Your task to perform on an android device: install app "Cash App" Image 0: 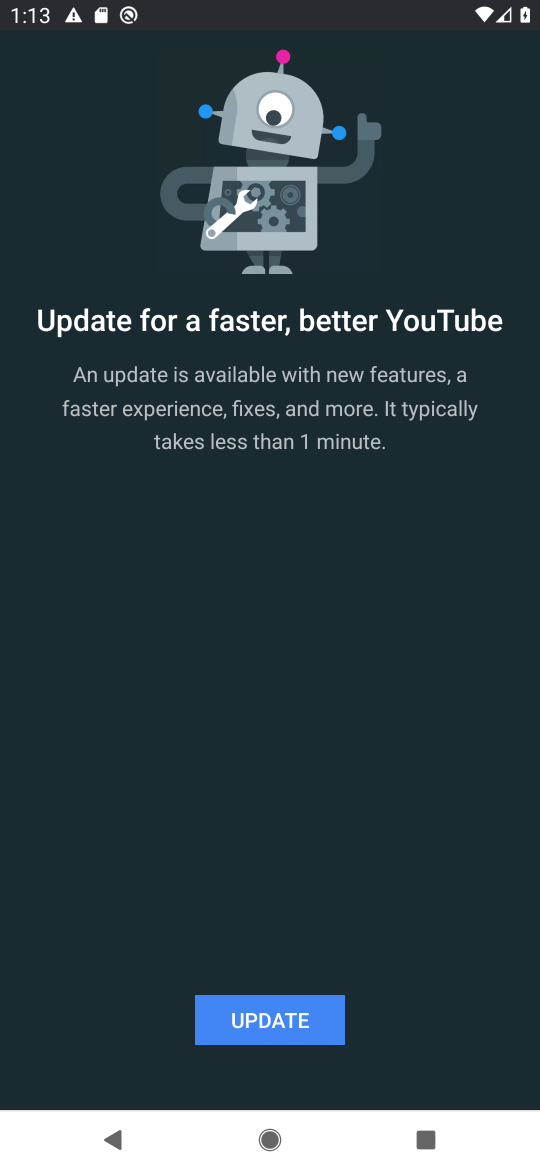
Step 0: press home button
Your task to perform on an android device: install app "Cash App" Image 1: 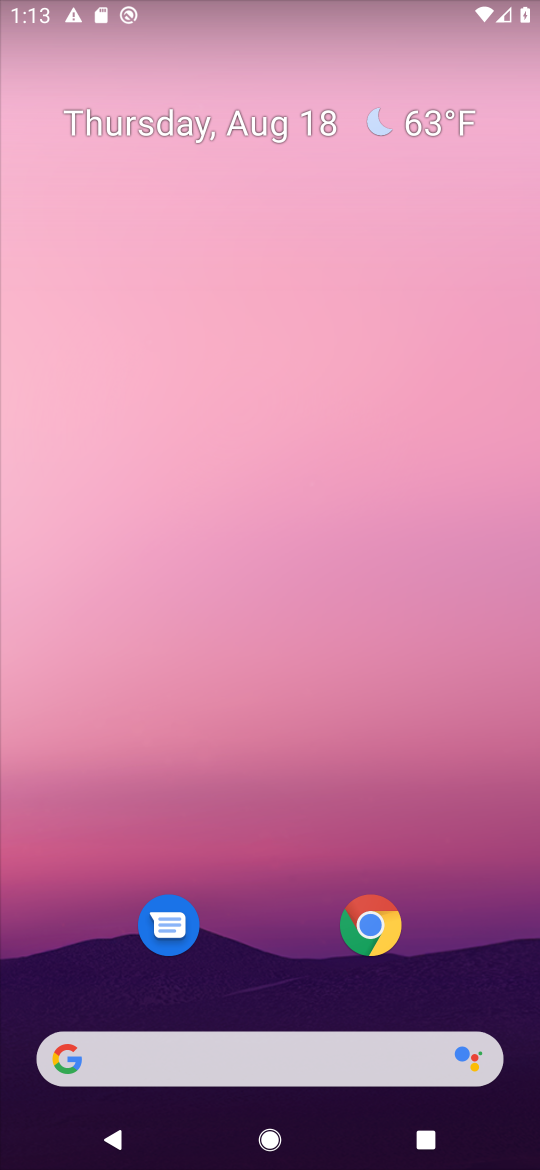
Step 1: drag from (246, 758) to (227, 129)
Your task to perform on an android device: install app "Cash App" Image 2: 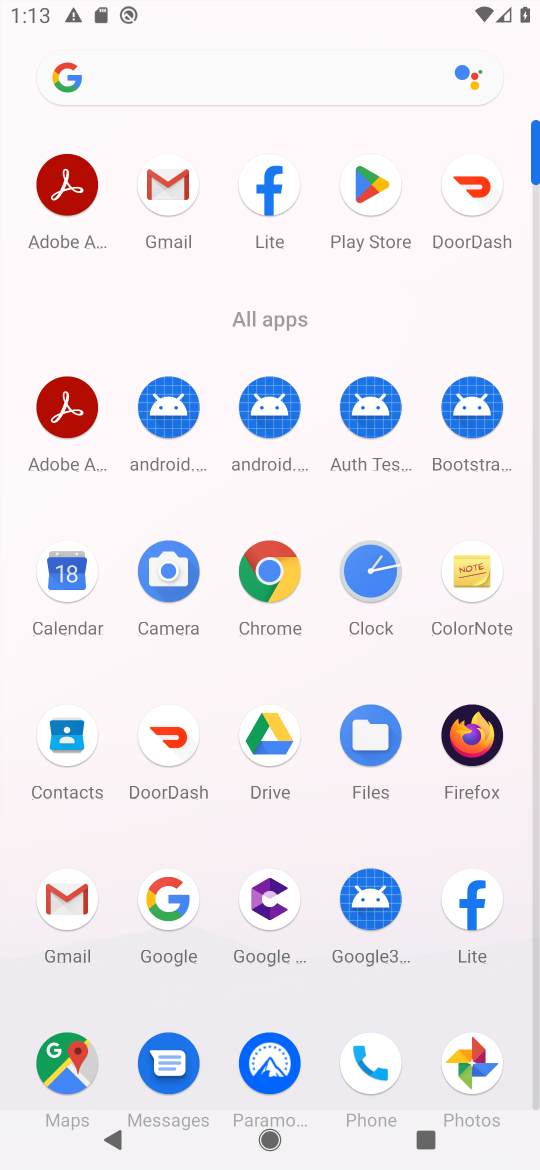
Step 2: click (378, 195)
Your task to perform on an android device: install app "Cash App" Image 3: 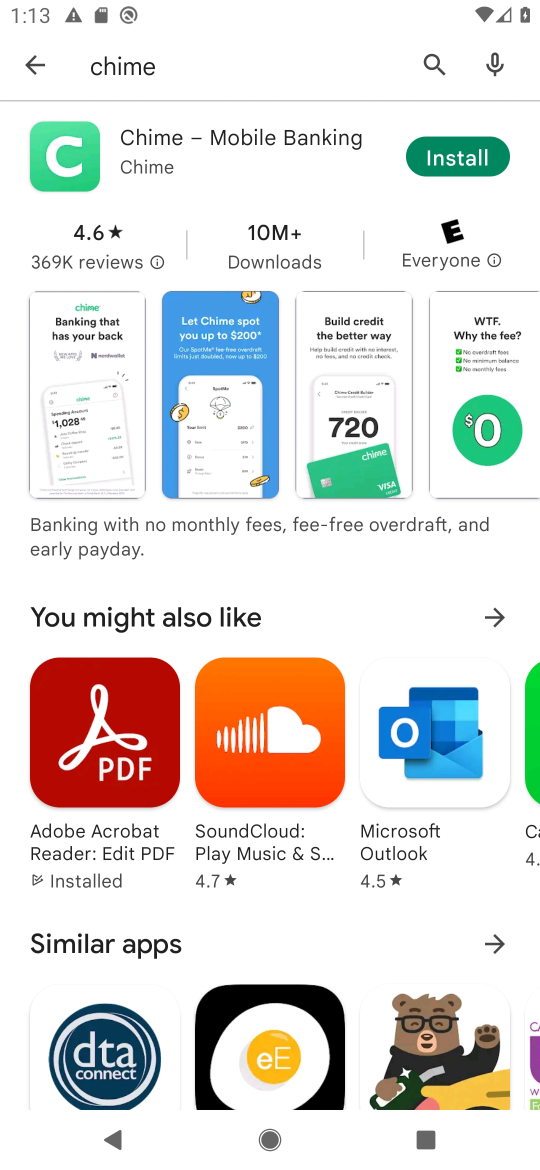
Step 3: click (30, 69)
Your task to perform on an android device: install app "Cash App" Image 4: 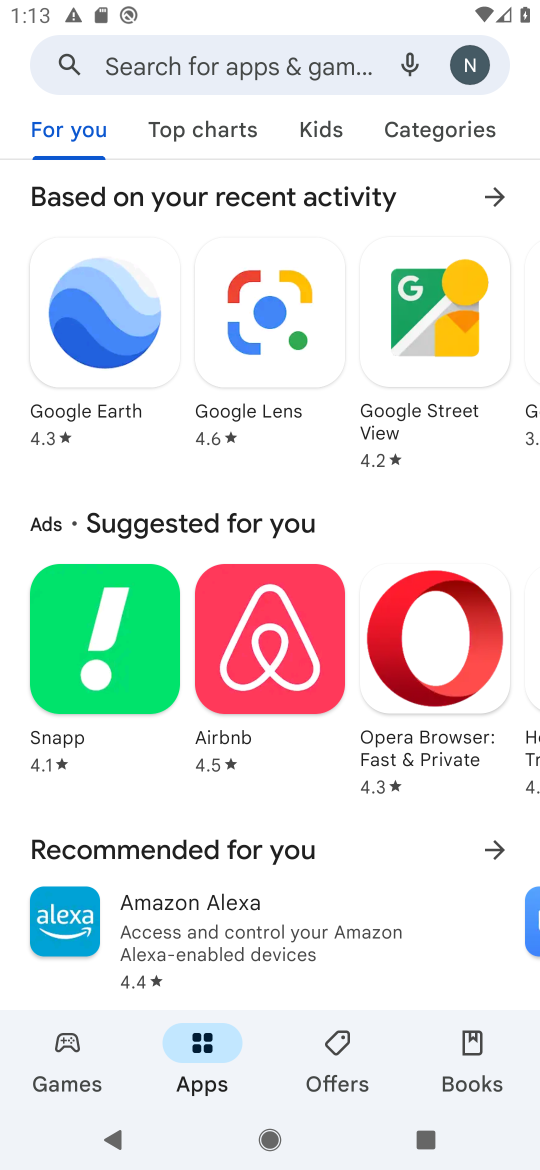
Step 4: click (276, 52)
Your task to perform on an android device: install app "Cash App" Image 5: 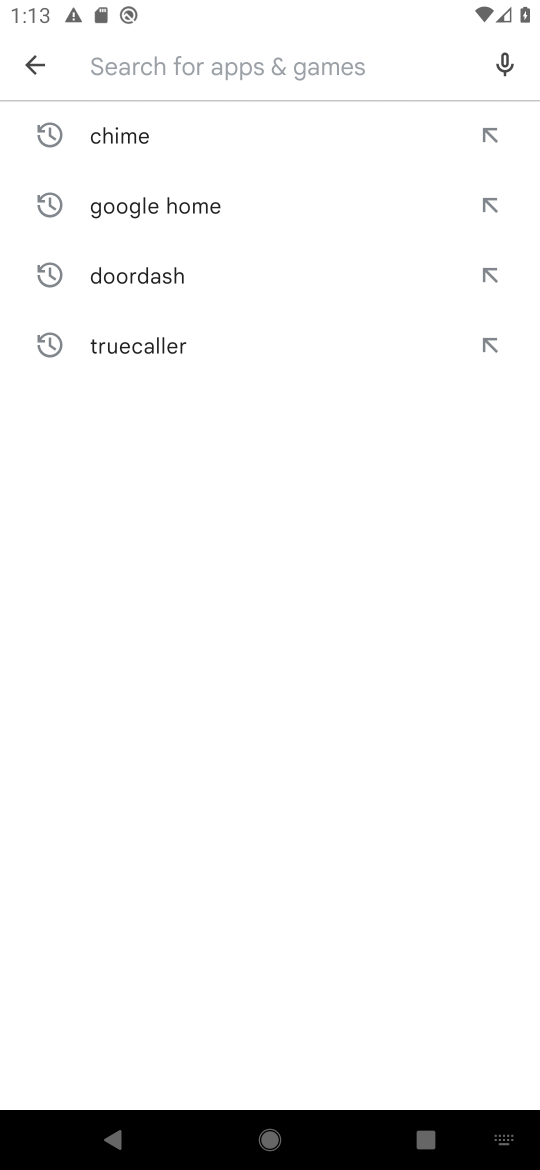
Step 5: type "Cash app"
Your task to perform on an android device: install app "Cash App" Image 6: 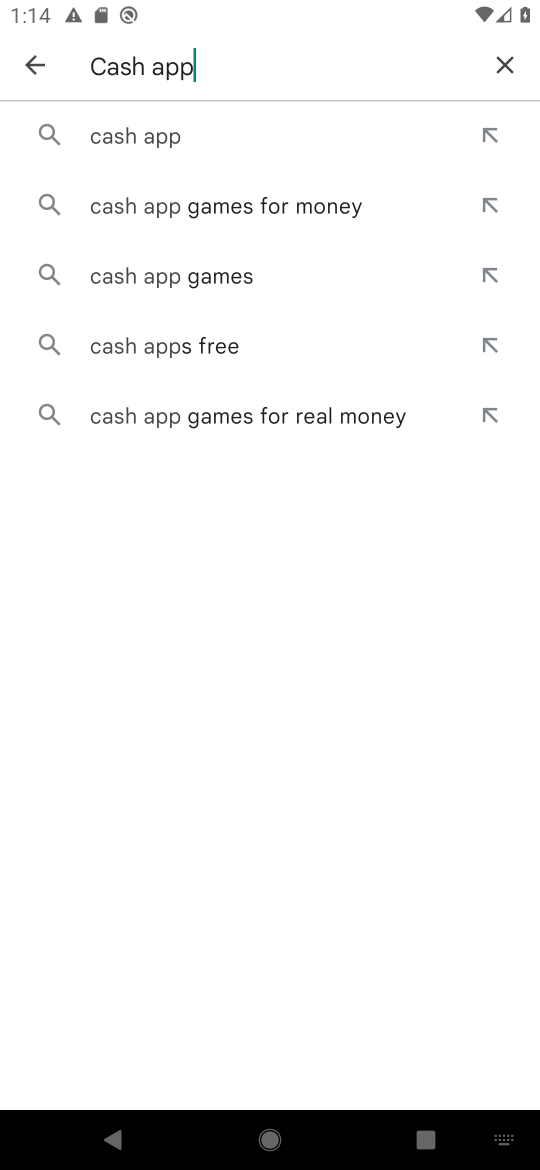
Step 6: click (132, 138)
Your task to perform on an android device: install app "Cash App" Image 7: 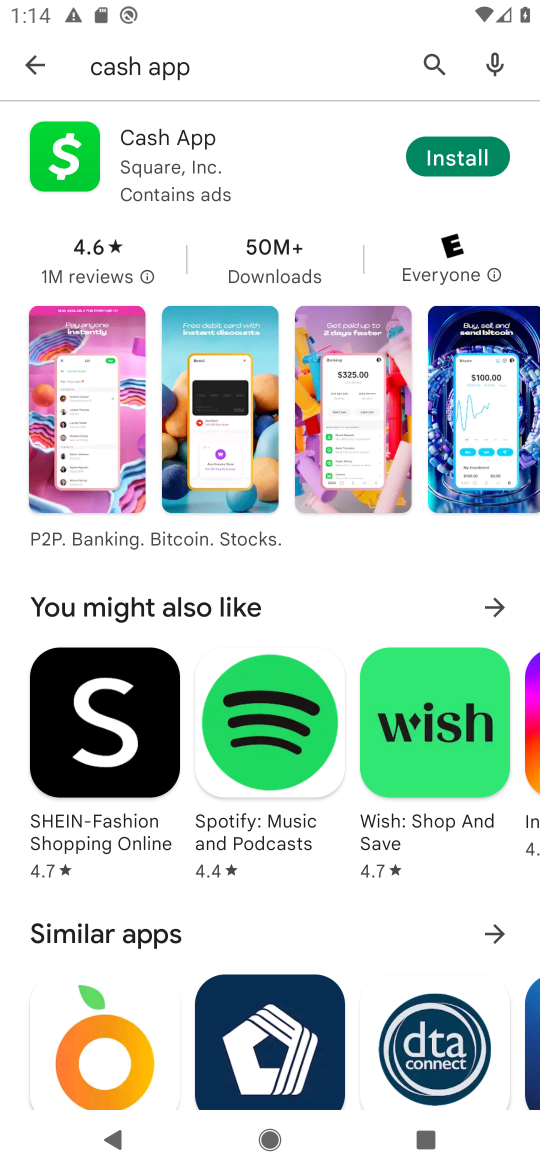
Step 7: click (465, 152)
Your task to perform on an android device: install app "Cash App" Image 8: 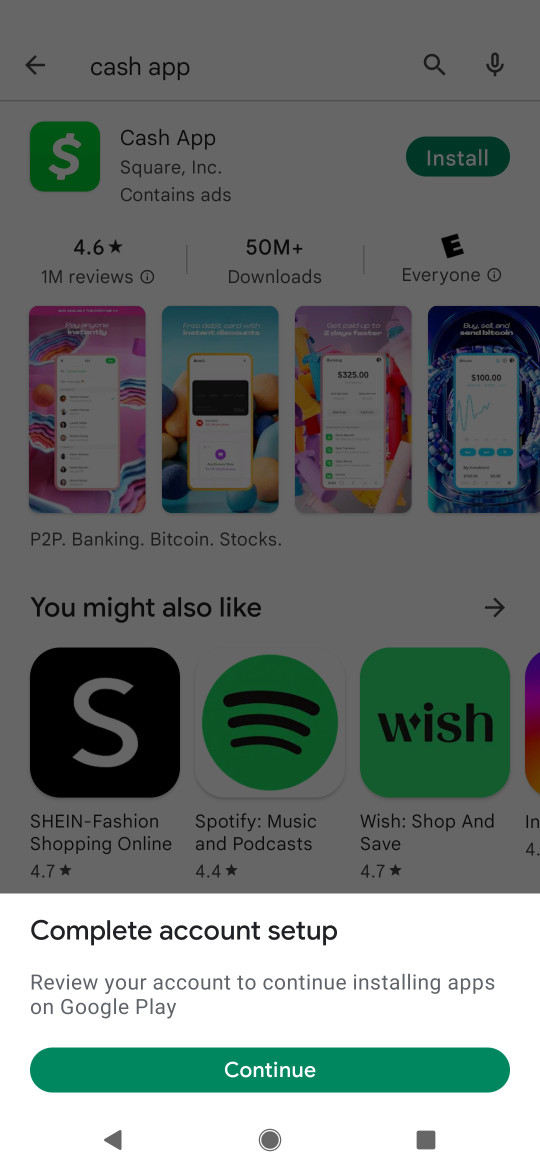
Step 8: click (323, 1069)
Your task to perform on an android device: install app "Cash App" Image 9: 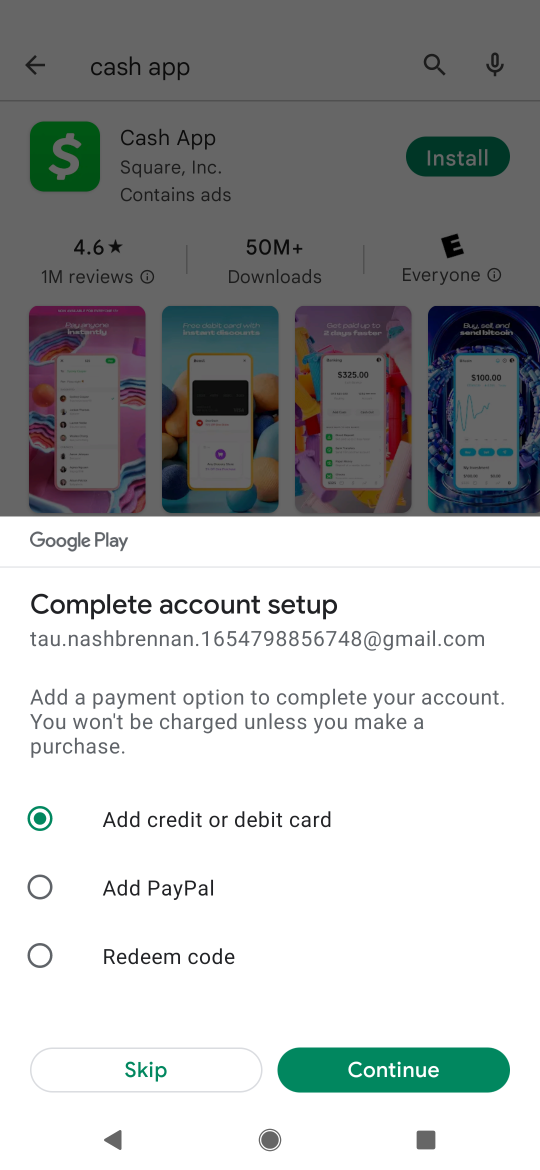
Step 9: click (176, 1052)
Your task to perform on an android device: install app "Cash App" Image 10: 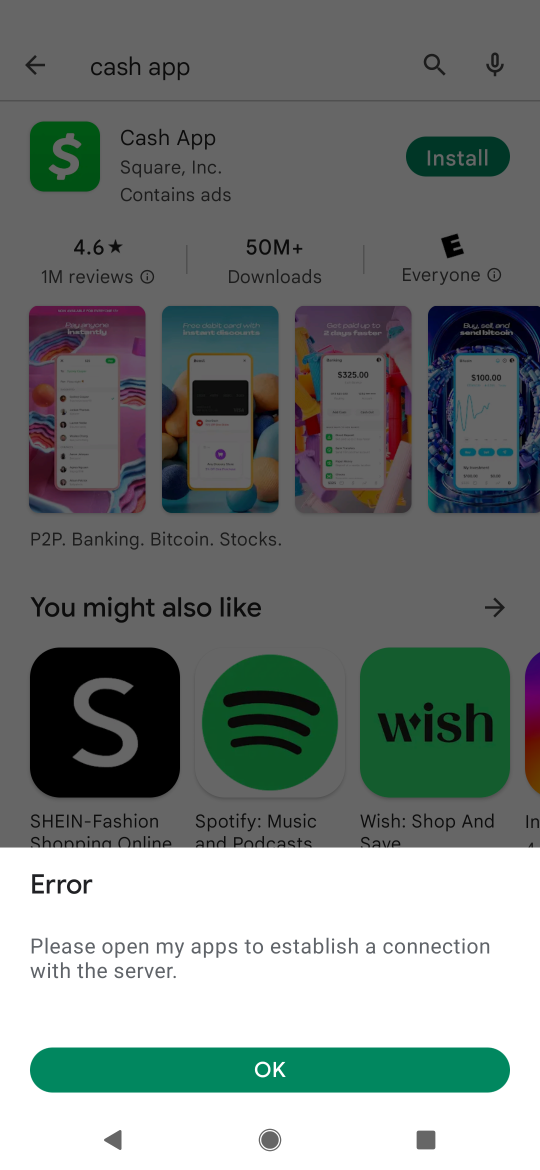
Step 10: click (298, 1070)
Your task to perform on an android device: install app "Cash App" Image 11: 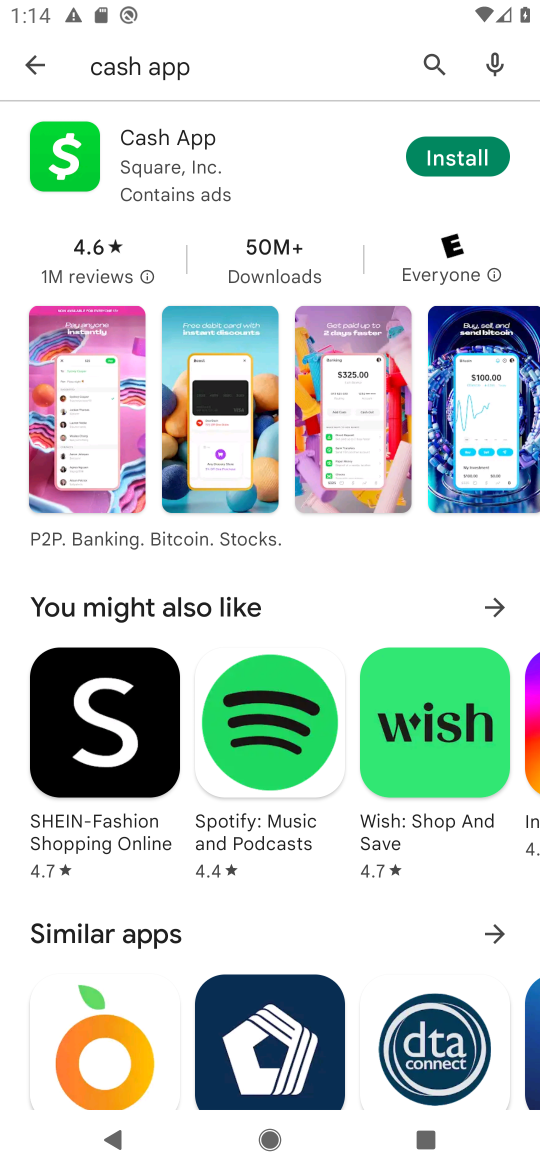
Step 11: task complete